Your task to perform on an android device: all mails in gmail Image 0: 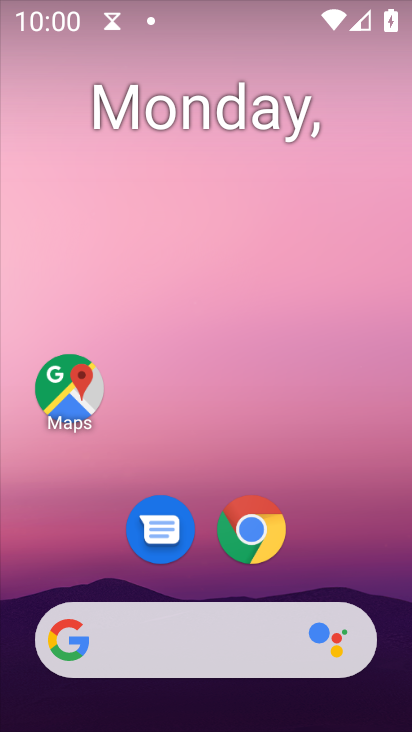
Step 0: drag from (319, 570) to (232, 156)
Your task to perform on an android device: all mails in gmail Image 1: 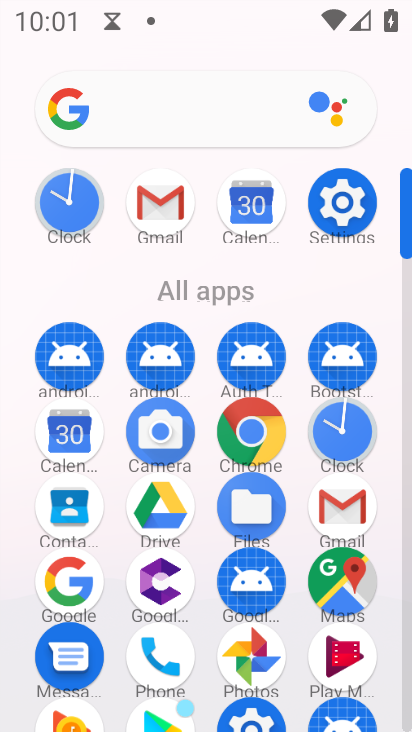
Step 1: click (158, 205)
Your task to perform on an android device: all mails in gmail Image 2: 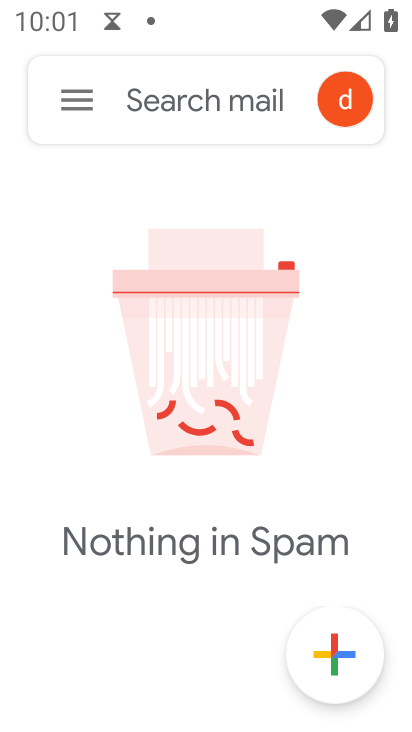
Step 2: click (76, 88)
Your task to perform on an android device: all mails in gmail Image 3: 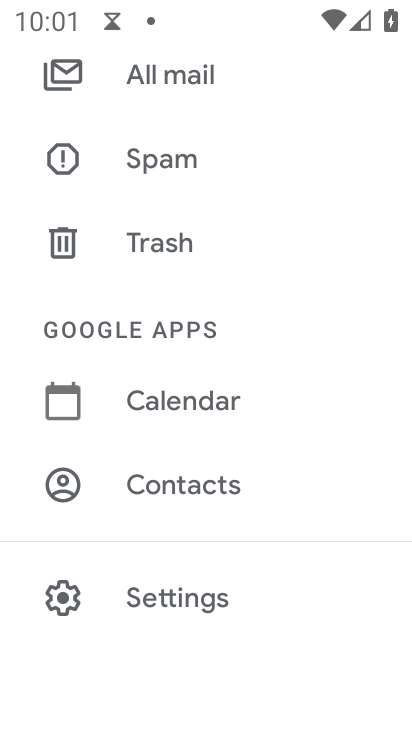
Step 3: drag from (158, 200) to (177, 324)
Your task to perform on an android device: all mails in gmail Image 4: 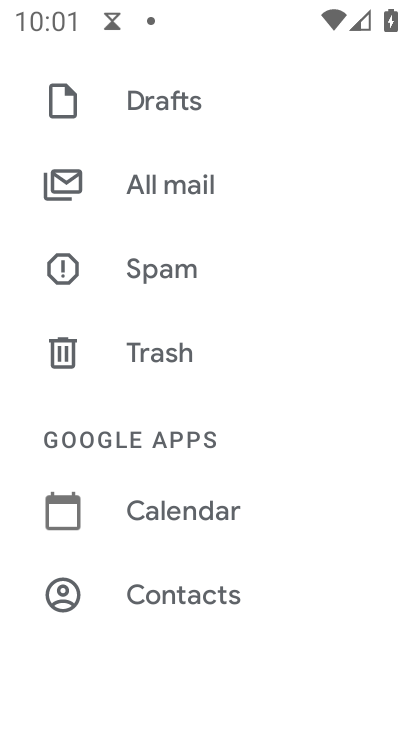
Step 4: click (170, 176)
Your task to perform on an android device: all mails in gmail Image 5: 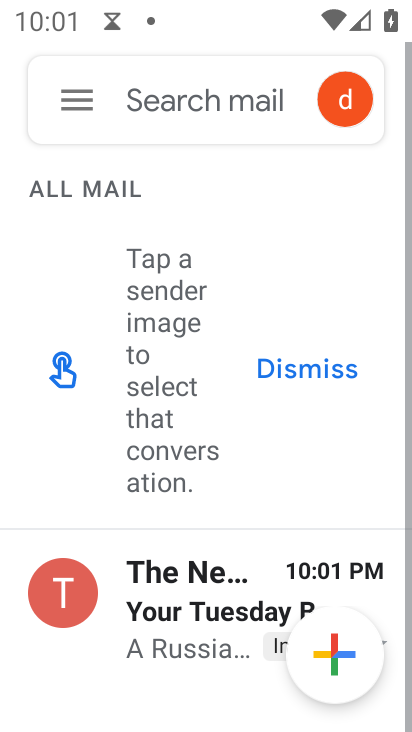
Step 5: task complete